Your task to perform on an android device: change the clock display to digital Image 0: 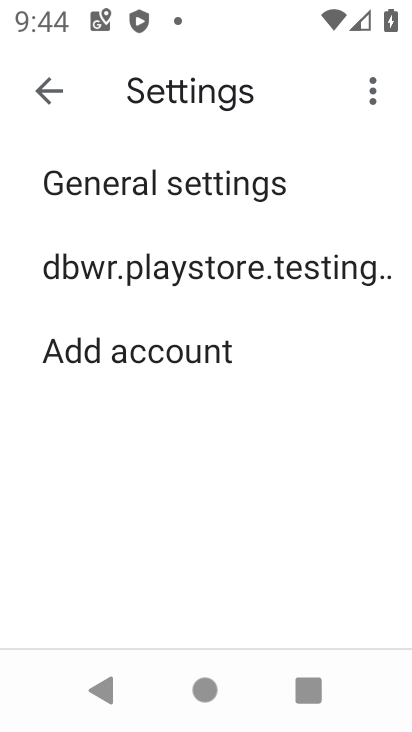
Step 0: press home button
Your task to perform on an android device: change the clock display to digital Image 1: 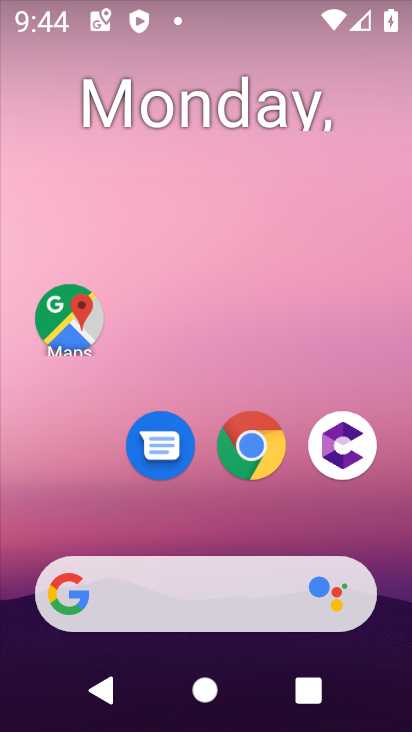
Step 1: drag from (221, 528) to (179, 78)
Your task to perform on an android device: change the clock display to digital Image 2: 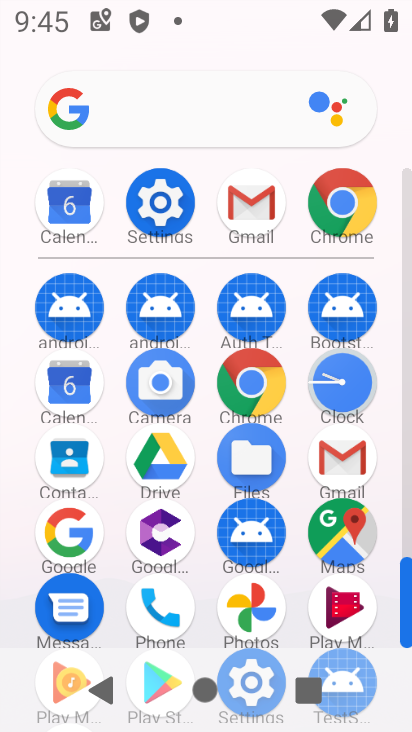
Step 2: click (350, 378)
Your task to perform on an android device: change the clock display to digital Image 3: 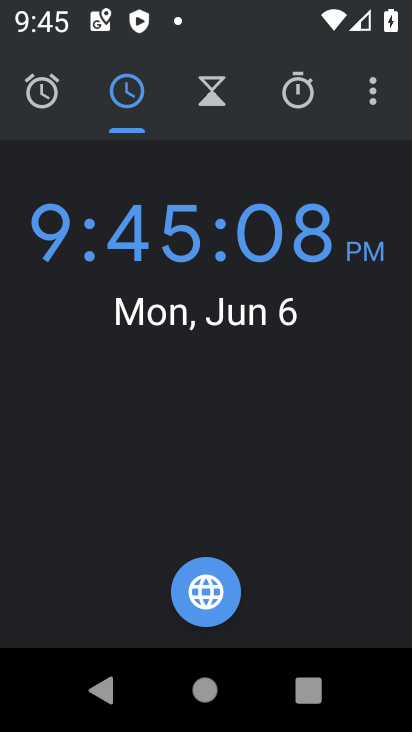
Step 3: click (380, 96)
Your task to perform on an android device: change the clock display to digital Image 4: 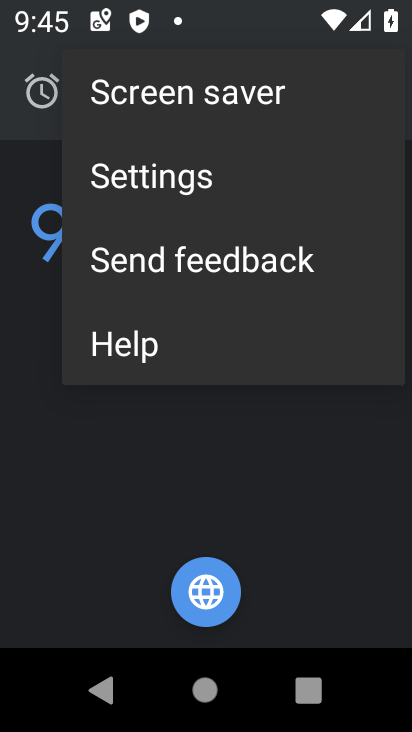
Step 4: click (139, 177)
Your task to perform on an android device: change the clock display to digital Image 5: 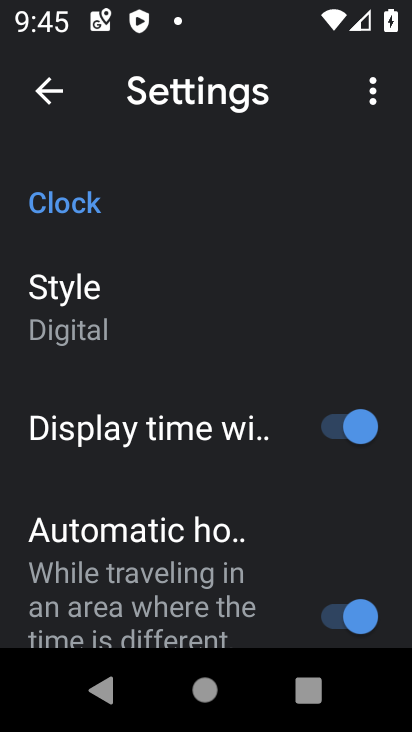
Step 5: click (73, 317)
Your task to perform on an android device: change the clock display to digital Image 6: 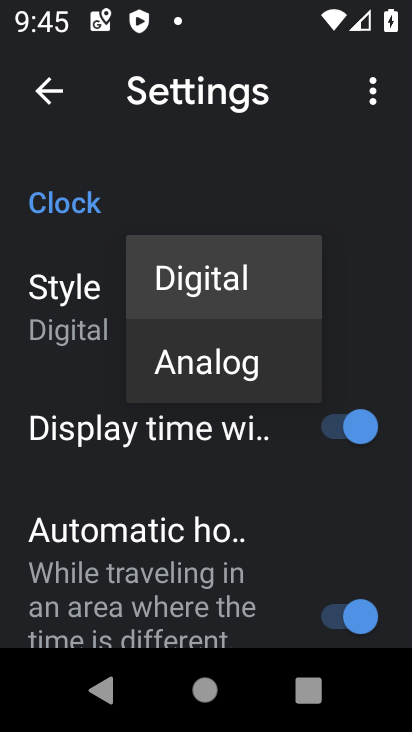
Step 6: task complete